Your task to perform on an android device: What's on the menu at McDonalds? Image 0: 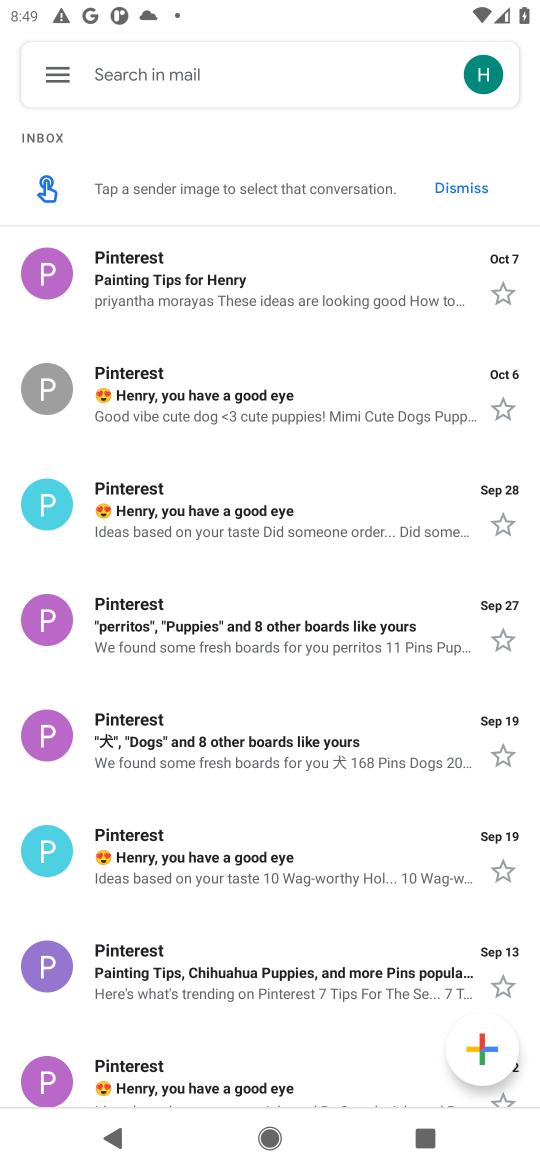
Step 0: press home button
Your task to perform on an android device: What's on the menu at McDonalds? Image 1: 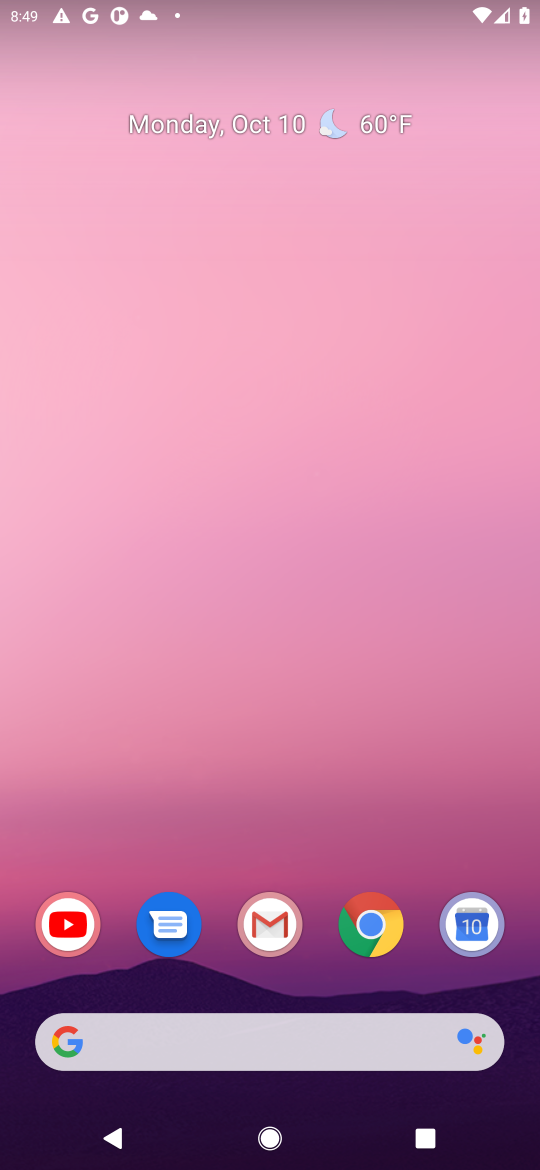
Step 1: drag from (341, 970) to (531, 50)
Your task to perform on an android device: What's on the menu at McDonalds? Image 2: 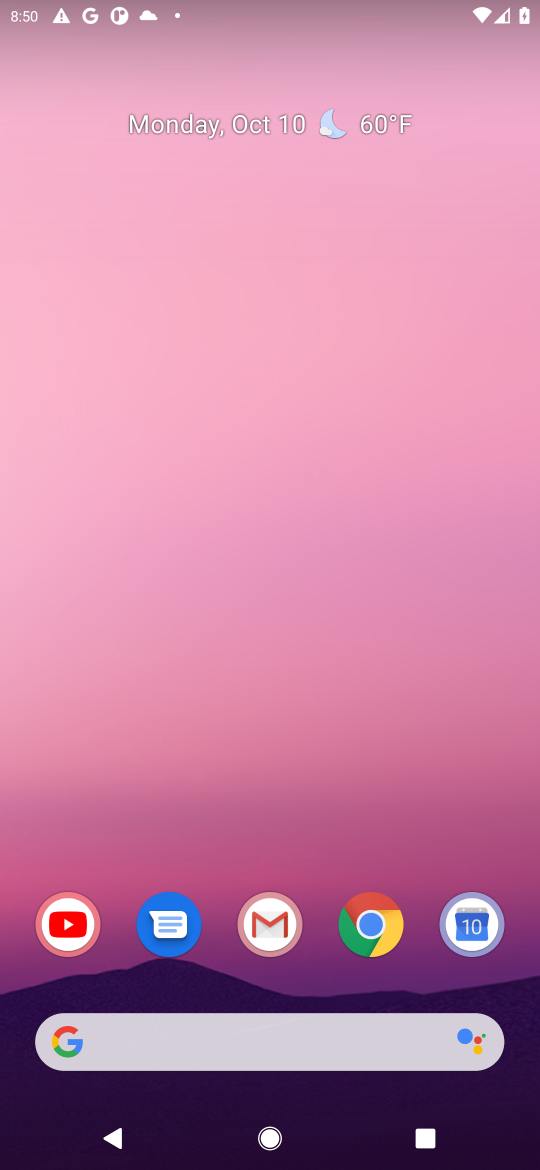
Step 2: drag from (358, 970) to (450, 9)
Your task to perform on an android device: What's on the menu at McDonalds? Image 3: 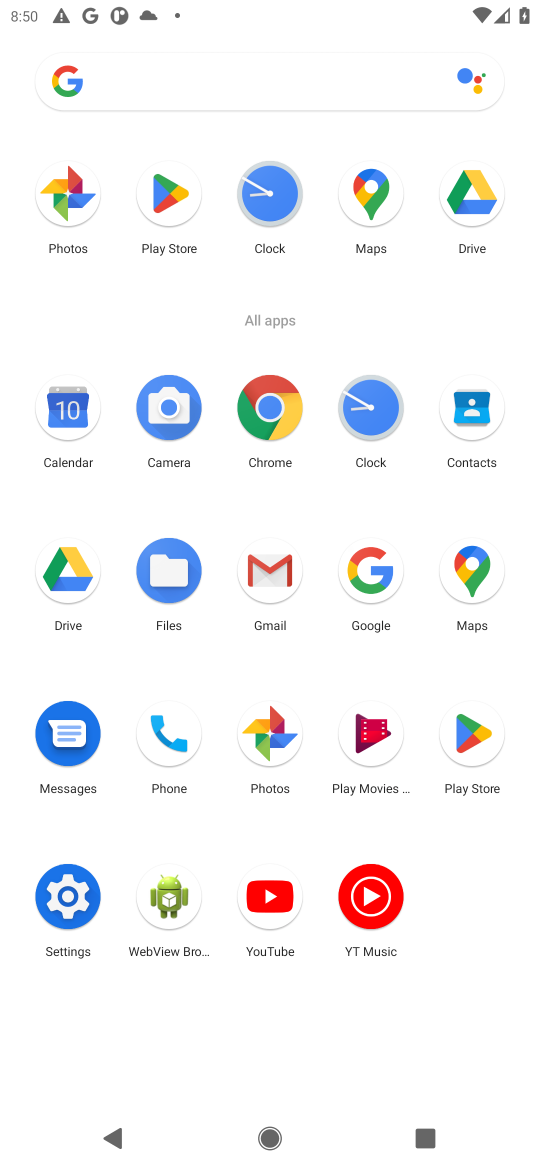
Step 3: click (372, 582)
Your task to perform on an android device: What's on the menu at McDonalds? Image 4: 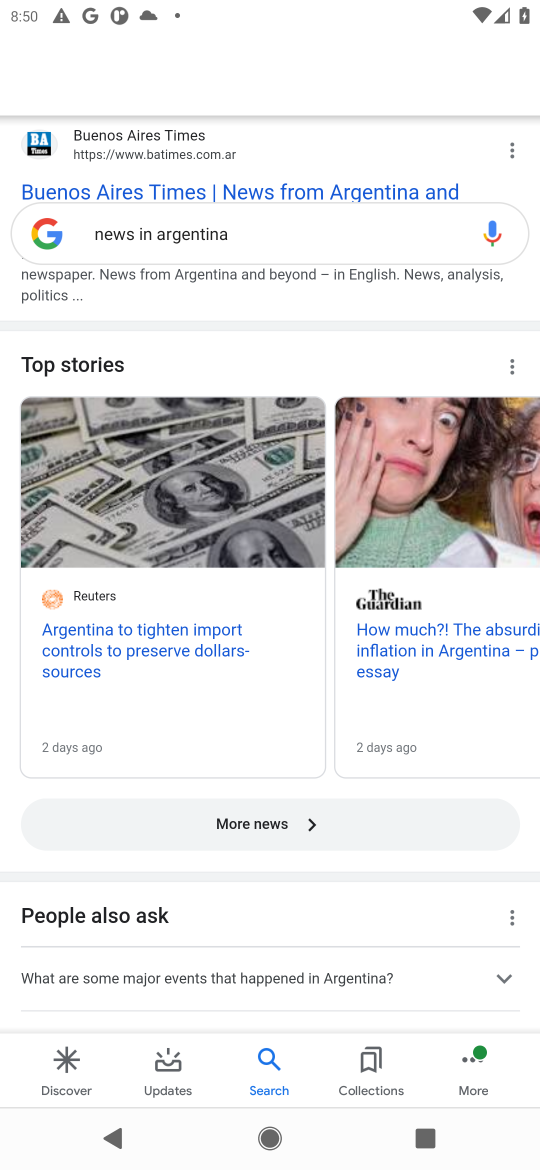
Step 4: drag from (297, 356) to (327, 619)
Your task to perform on an android device: What's on the menu at McDonalds? Image 5: 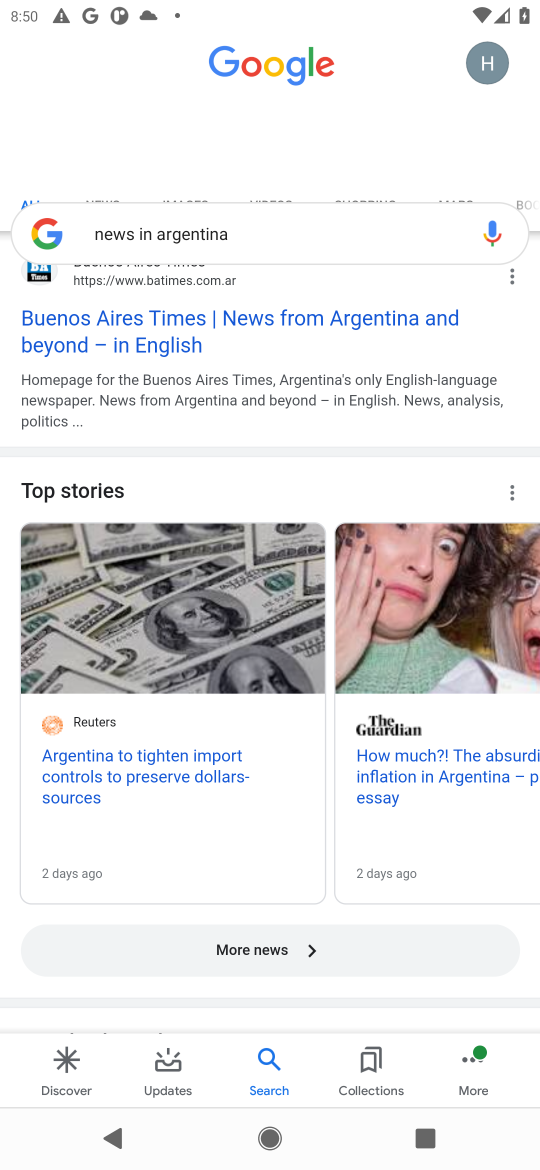
Step 5: click (370, 247)
Your task to perform on an android device: What's on the menu at McDonalds? Image 6: 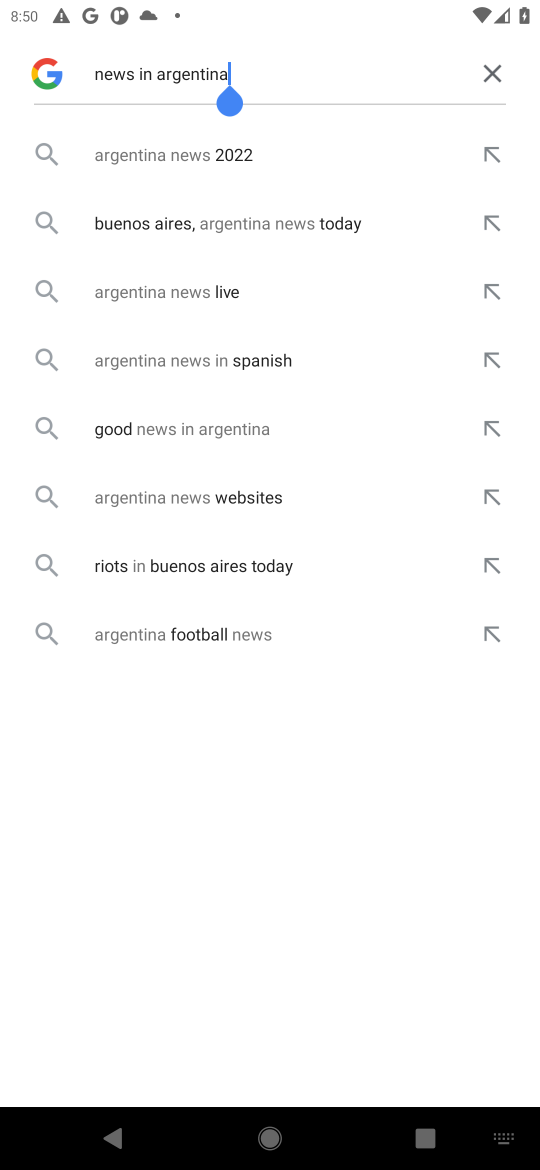
Step 6: click (493, 74)
Your task to perform on an android device: What's on the menu at McDonalds? Image 7: 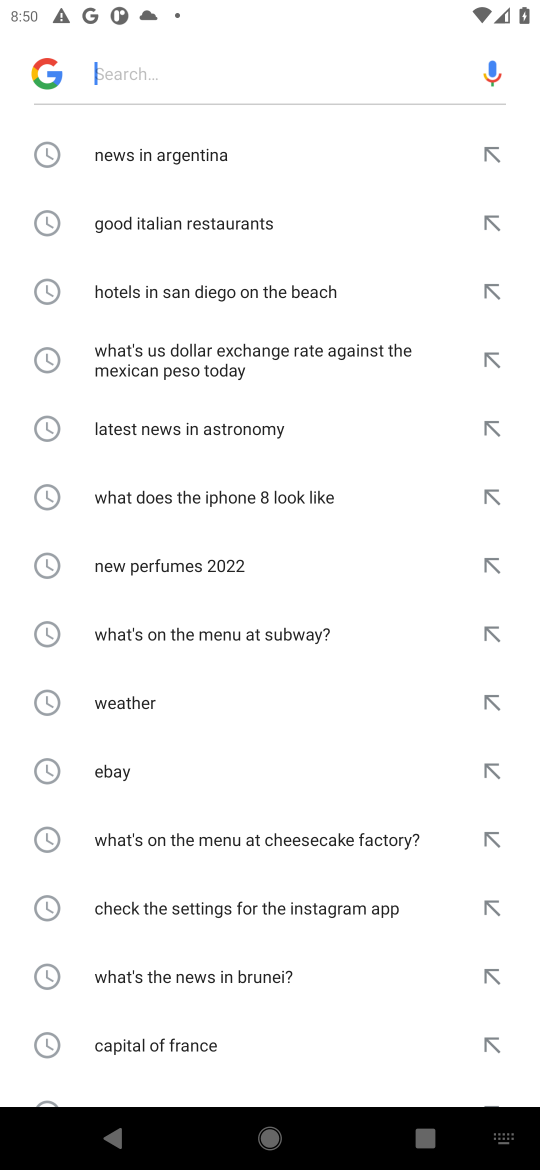
Step 7: type "What's on the menu at McDonalds?"
Your task to perform on an android device: What's on the menu at McDonalds? Image 8: 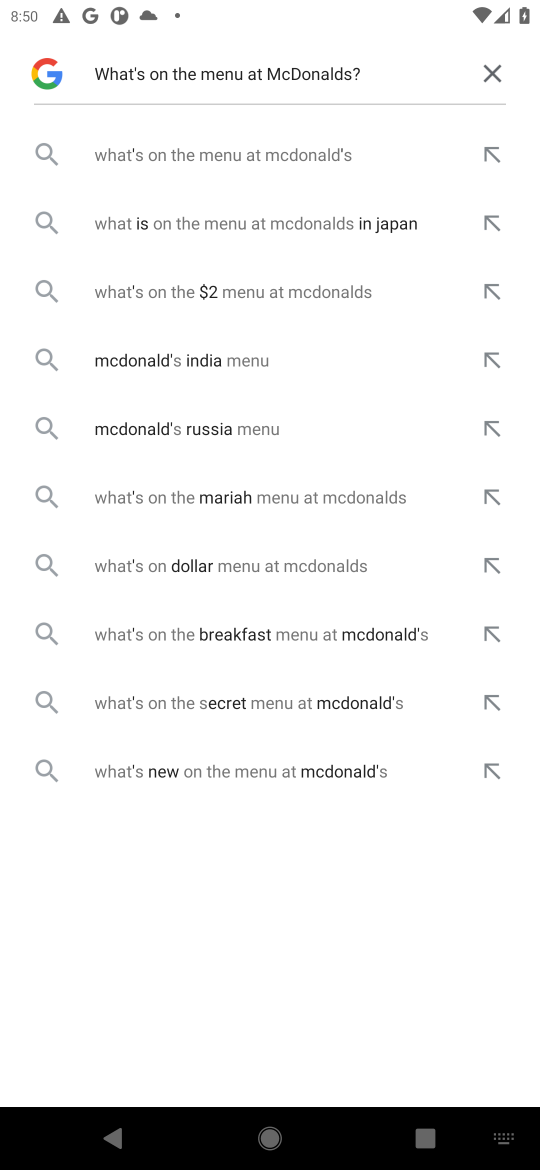
Step 8: click (334, 158)
Your task to perform on an android device: What's on the menu at McDonalds? Image 9: 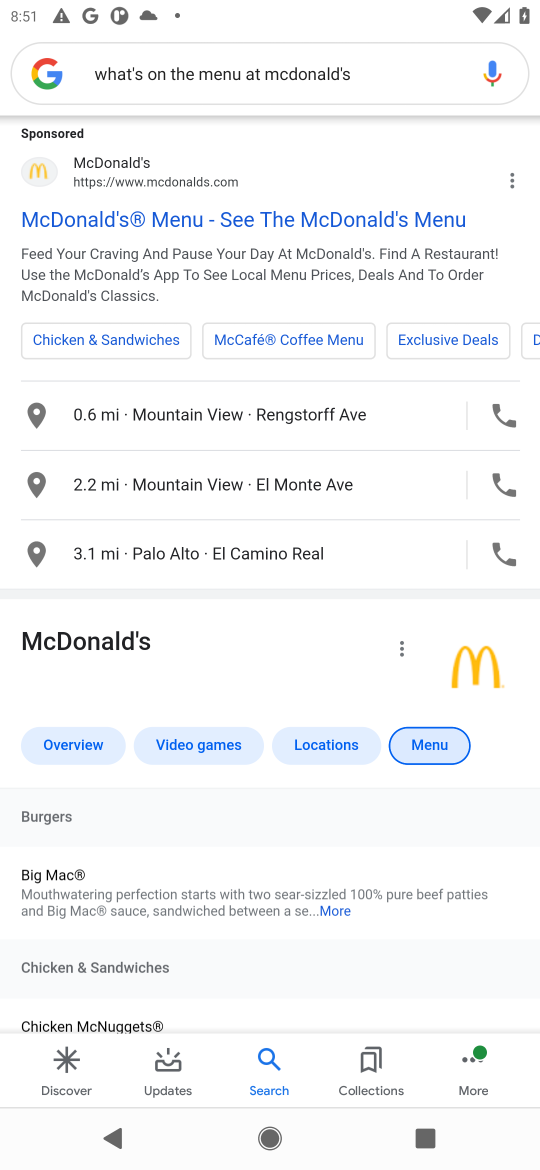
Step 9: task complete